Your task to perform on an android device: turn off airplane mode Image 0: 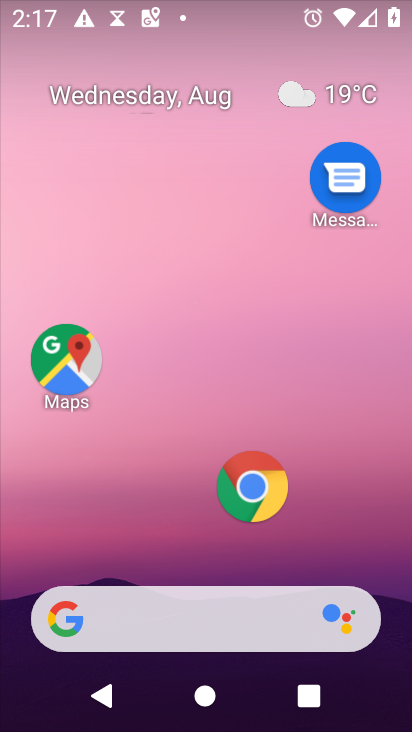
Step 0: drag from (366, 10) to (233, 633)
Your task to perform on an android device: turn off airplane mode Image 1: 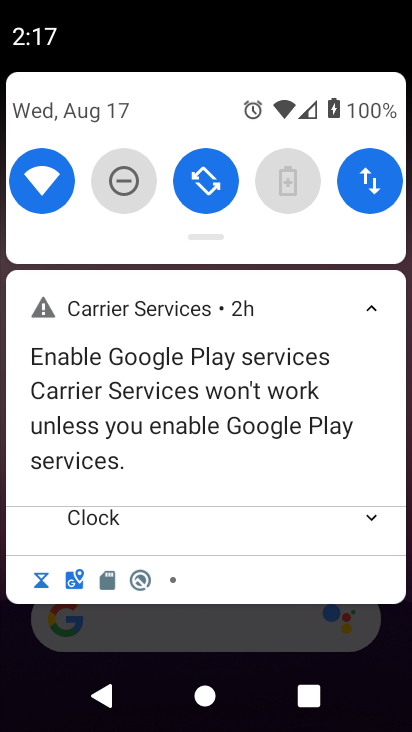
Step 1: task complete